Your task to perform on an android device: Go to CNN.com Image 0: 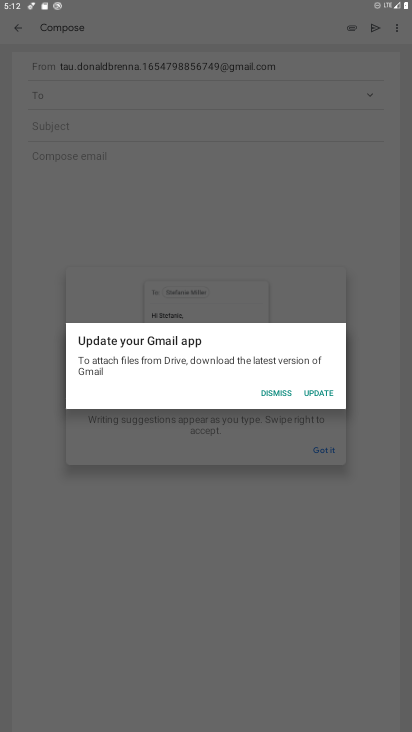
Step 0: press home button
Your task to perform on an android device: Go to CNN.com Image 1: 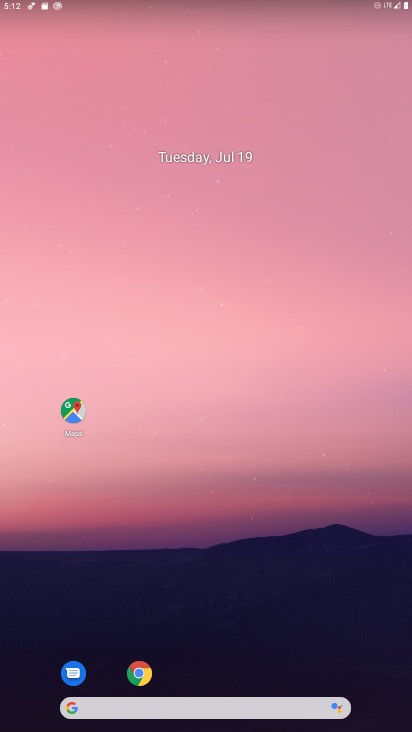
Step 1: click (139, 671)
Your task to perform on an android device: Go to CNN.com Image 2: 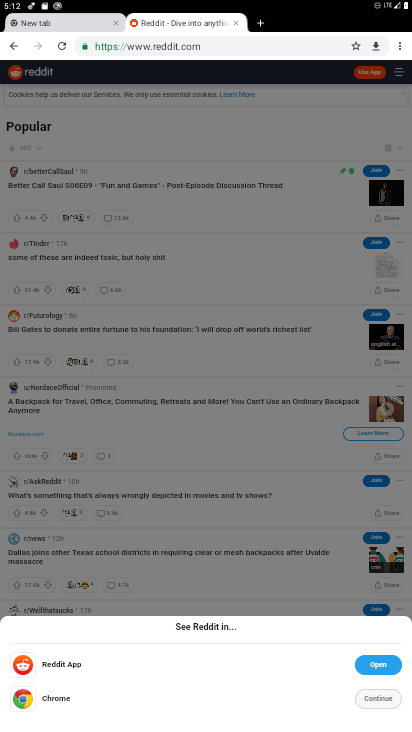
Step 2: click (373, 697)
Your task to perform on an android device: Go to CNN.com Image 3: 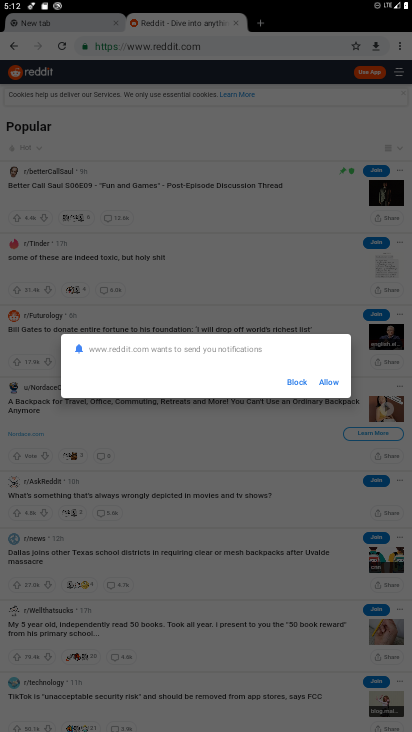
Step 3: click (258, 23)
Your task to perform on an android device: Go to CNN.com Image 4: 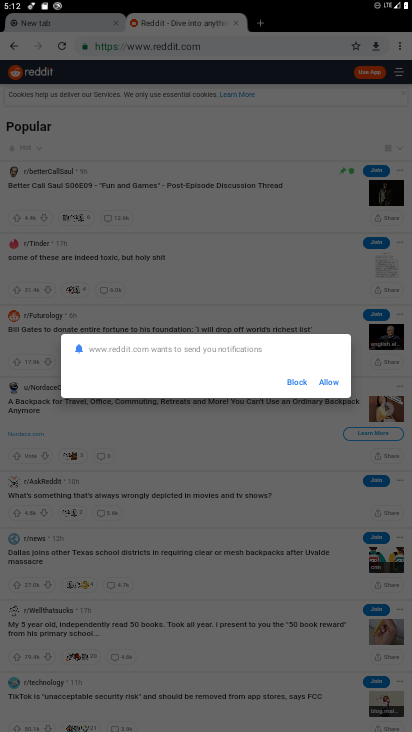
Step 4: click (291, 384)
Your task to perform on an android device: Go to CNN.com Image 5: 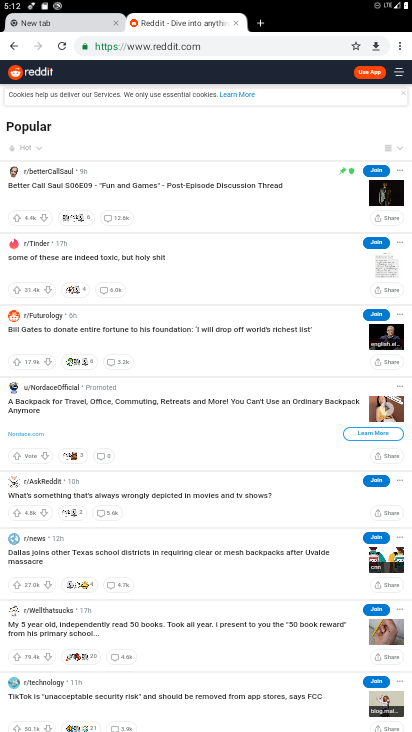
Step 5: click (262, 22)
Your task to perform on an android device: Go to CNN.com Image 6: 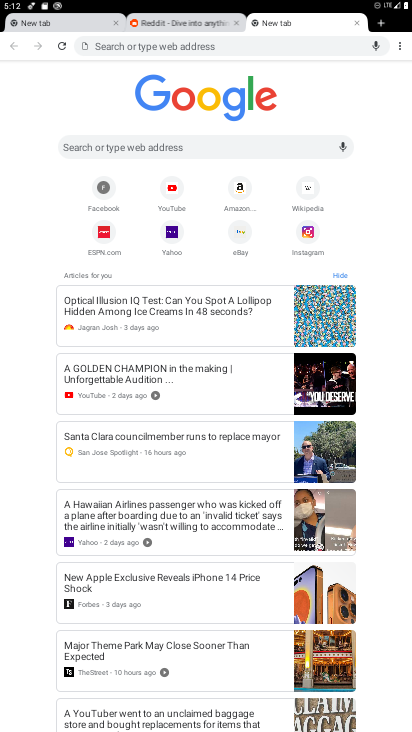
Step 6: click (169, 136)
Your task to perform on an android device: Go to CNN.com Image 7: 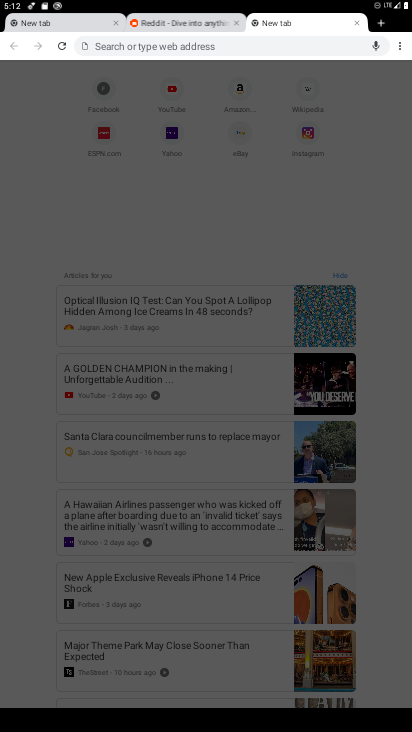
Step 7: type "cnn.com"
Your task to perform on an android device: Go to CNN.com Image 8: 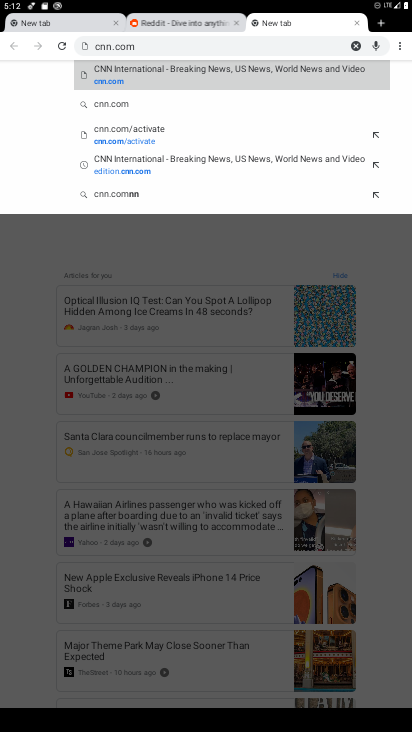
Step 8: click (118, 77)
Your task to perform on an android device: Go to CNN.com Image 9: 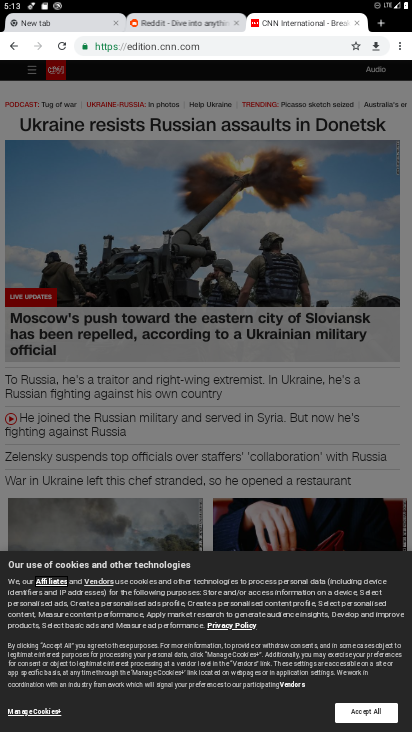
Step 9: click (371, 709)
Your task to perform on an android device: Go to CNN.com Image 10: 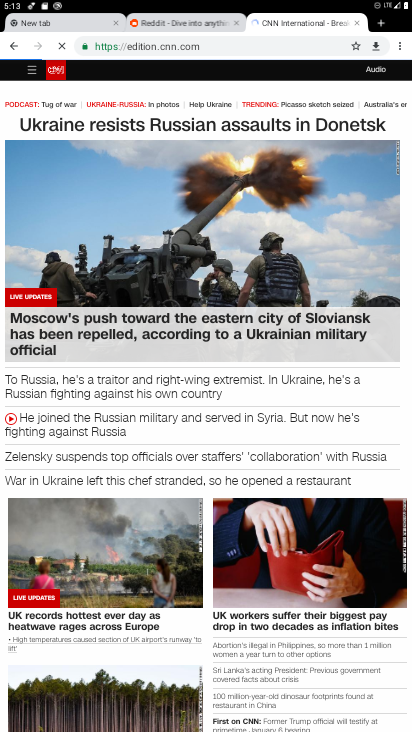
Step 10: task complete